Your task to perform on an android device: turn pop-ups on in chrome Image 0: 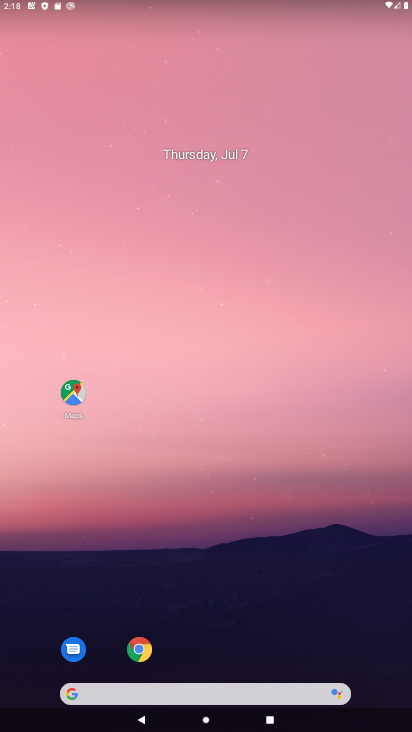
Step 0: drag from (291, 712) to (404, 9)
Your task to perform on an android device: turn pop-ups on in chrome Image 1: 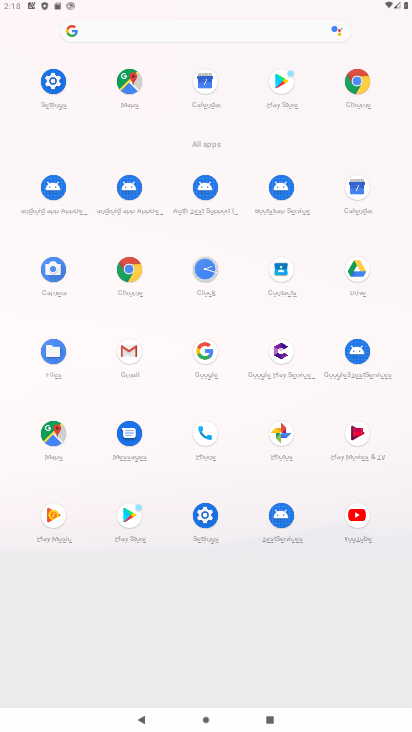
Step 1: click (128, 263)
Your task to perform on an android device: turn pop-ups on in chrome Image 2: 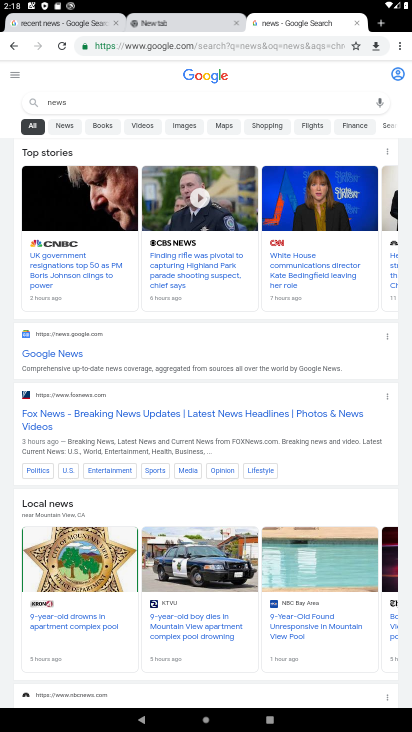
Step 2: drag from (395, 38) to (320, 275)
Your task to perform on an android device: turn pop-ups on in chrome Image 3: 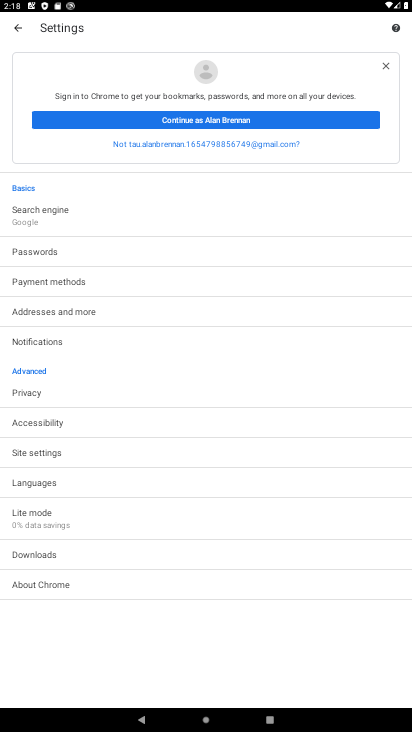
Step 3: click (56, 458)
Your task to perform on an android device: turn pop-ups on in chrome Image 4: 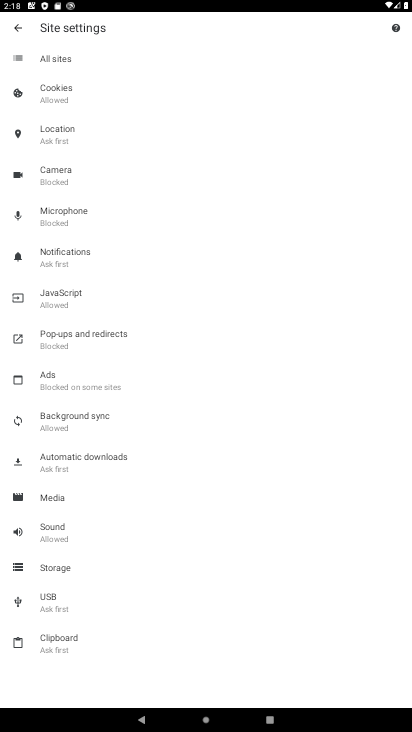
Step 4: click (82, 345)
Your task to perform on an android device: turn pop-ups on in chrome Image 5: 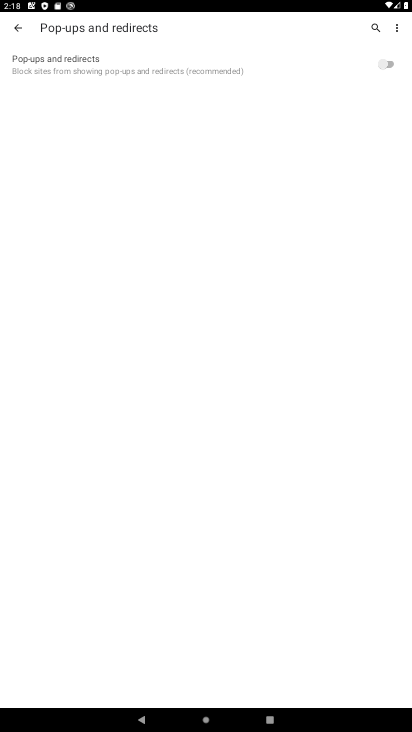
Step 5: click (387, 60)
Your task to perform on an android device: turn pop-ups on in chrome Image 6: 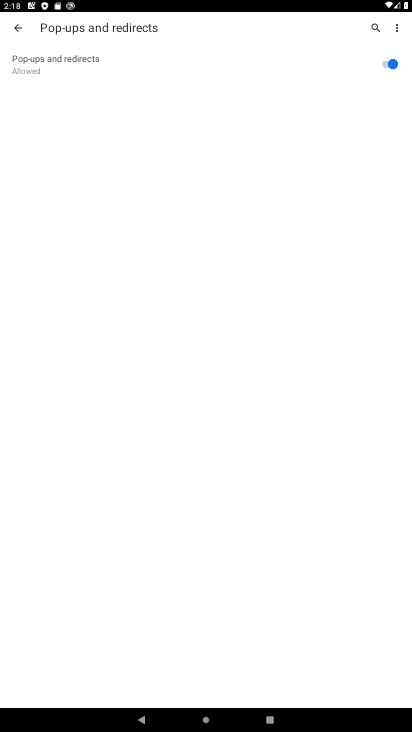
Step 6: task complete